Your task to perform on an android device: open a new tab in the chrome app Image 0: 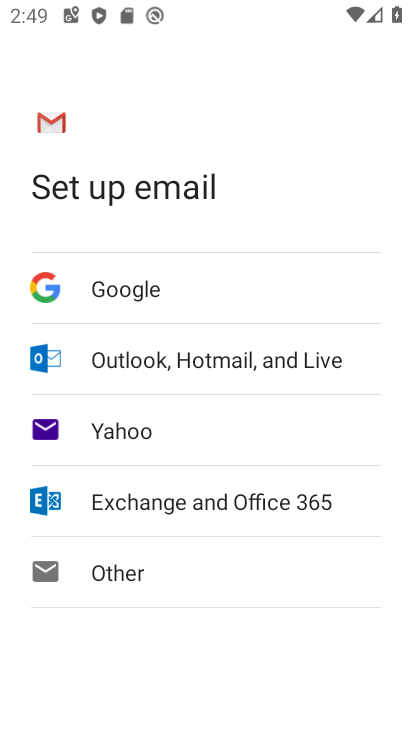
Step 0: press home button
Your task to perform on an android device: open a new tab in the chrome app Image 1: 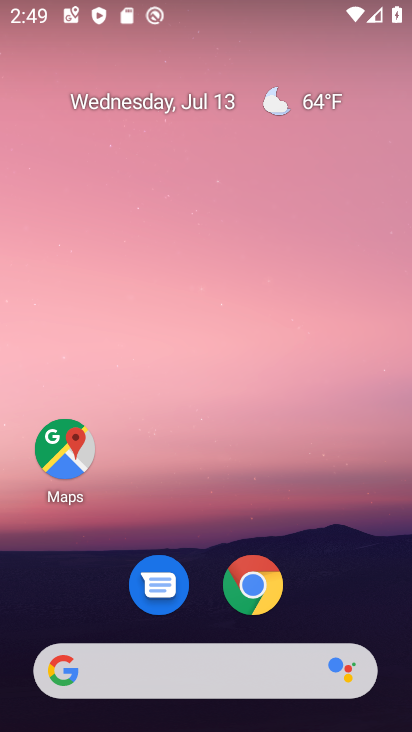
Step 1: click (253, 592)
Your task to perform on an android device: open a new tab in the chrome app Image 2: 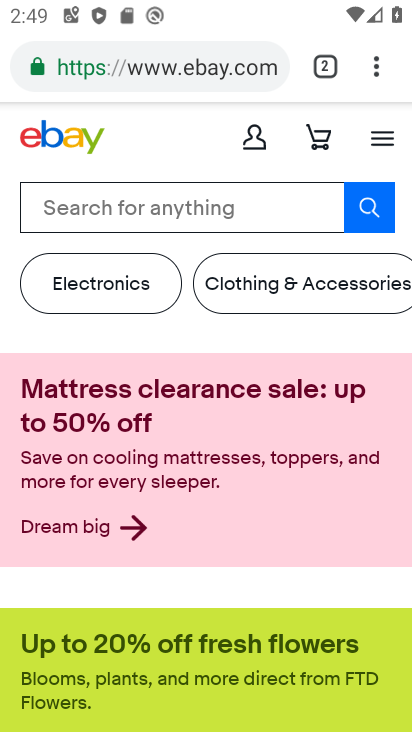
Step 2: task complete